Your task to perform on an android device: Go to Wikipedia Image 0: 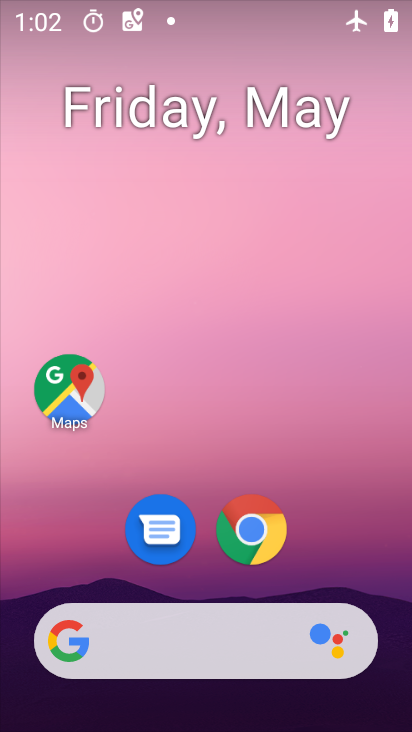
Step 0: drag from (170, 715) to (404, 0)
Your task to perform on an android device: Go to Wikipedia Image 1: 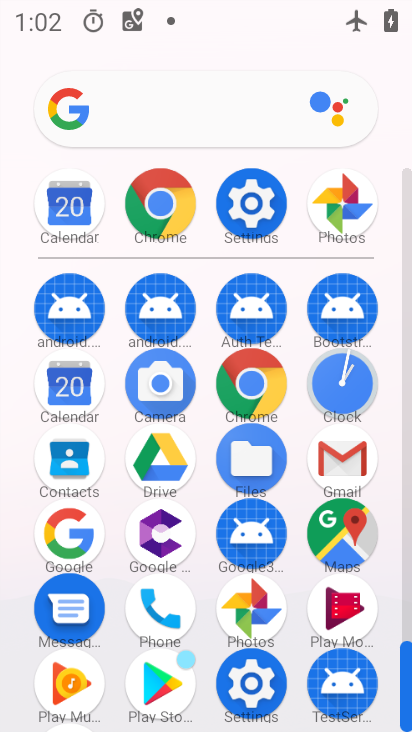
Step 1: click (256, 209)
Your task to perform on an android device: Go to Wikipedia Image 2: 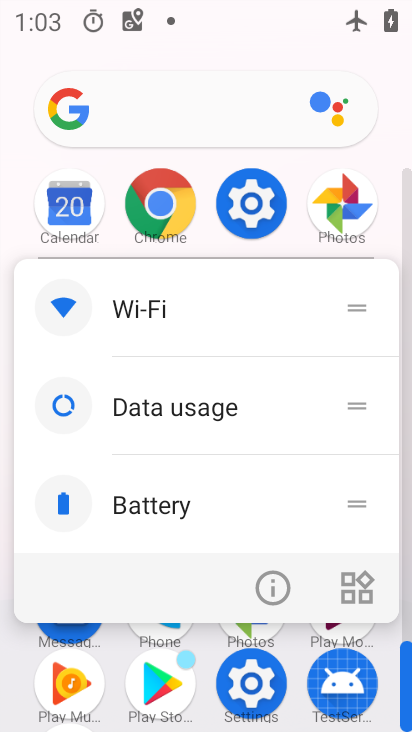
Step 2: click (158, 229)
Your task to perform on an android device: Go to Wikipedia Image 3: 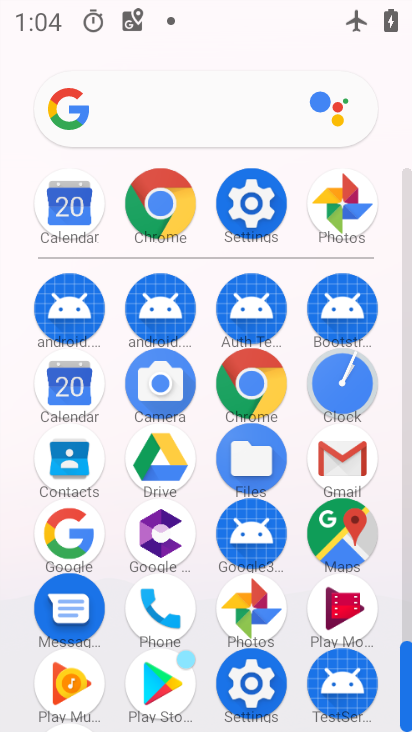
Step 3: click (157, 219)
Your task to perform on an android device: Go to Wikipedia Image 4: 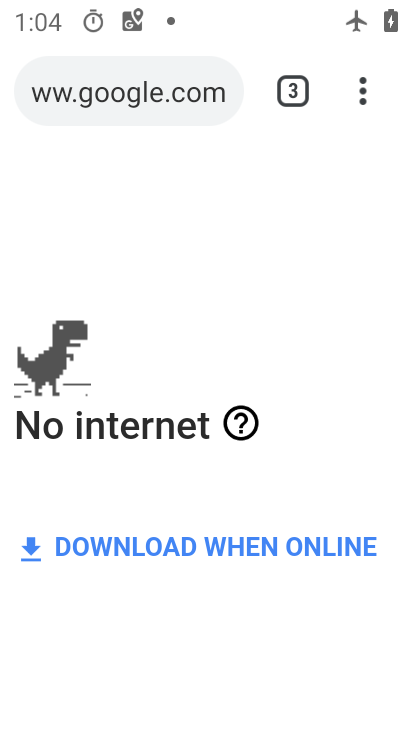
Step 4: click (187, 107)
Your task to perform on an android device: Go to Wikipedia Image 5: 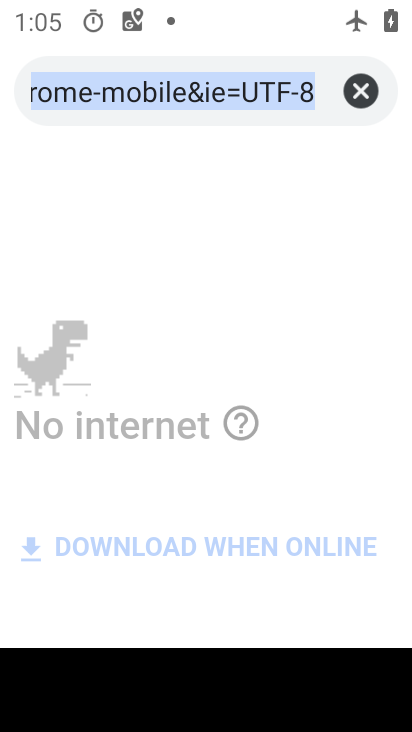
Step 5: type "wikipedia"
Your task to perform on an android device: Go to Wikipedia Image 6: 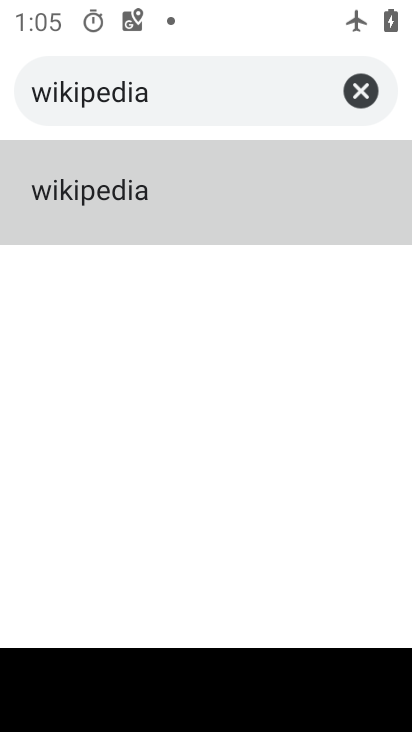
Step 6: task complete